Your task to perform on an android device: Empty the shopping cart on target.com. Image 0: 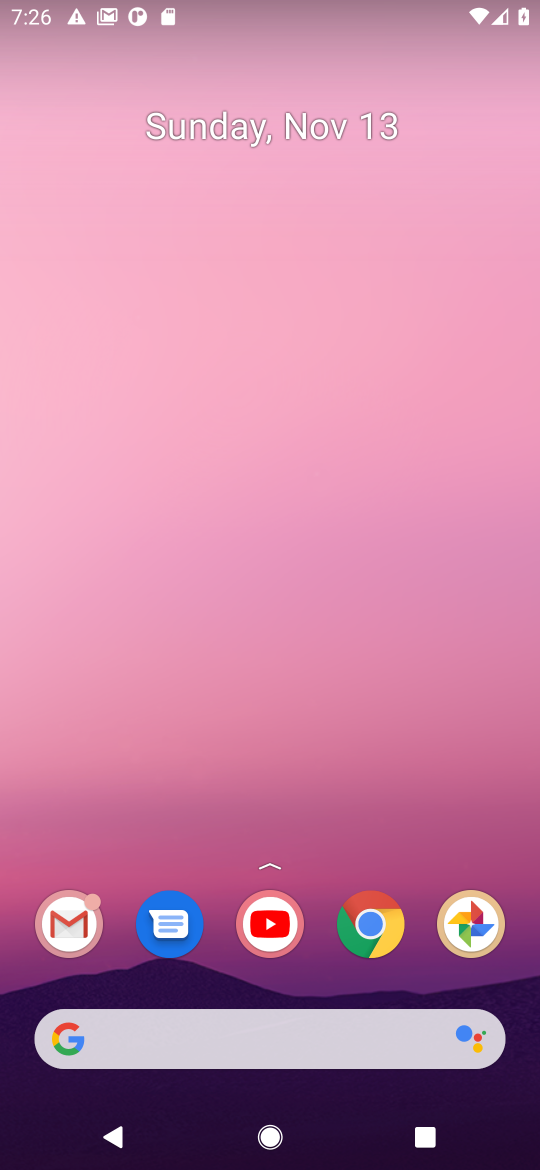
Step 0: click (372, 926)
Your task to perform on an android device: Empty the shopping cart on target.com. Image 1: 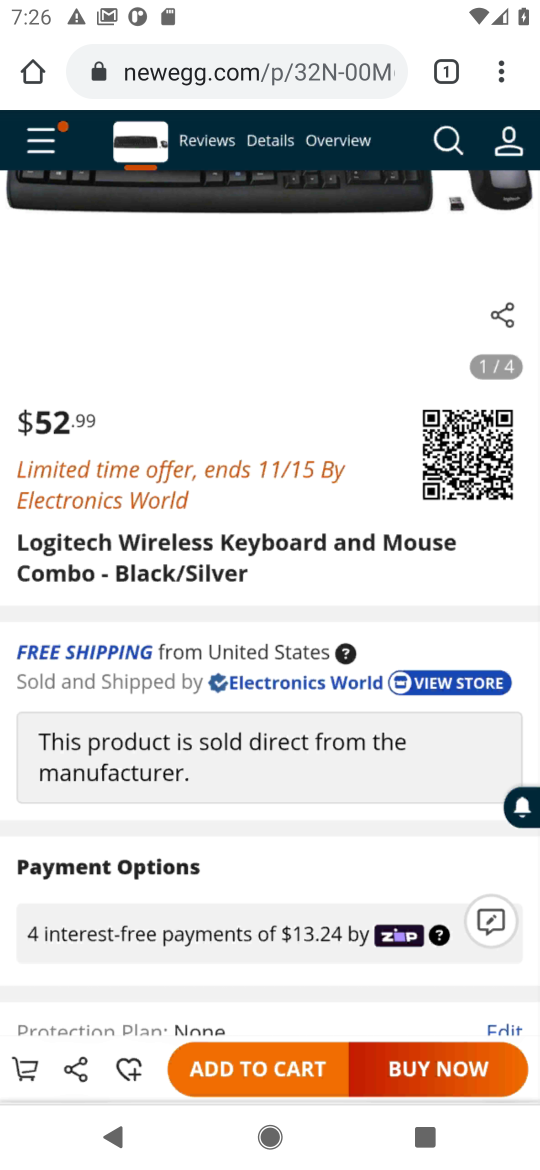
Step 1: click (228, 70)
Your task to perform on an android device: Empty the shopping cart on target.com. Image 2: 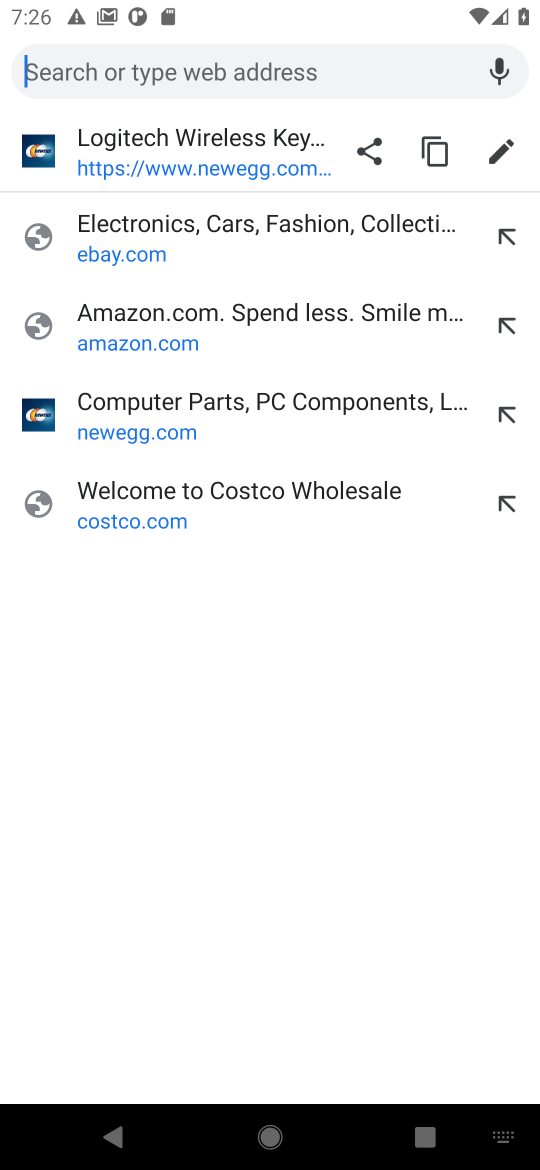
Step 2: type "target.com"
Your task to perform on an android device: Empty the shopping cart on target.com. Image 3: 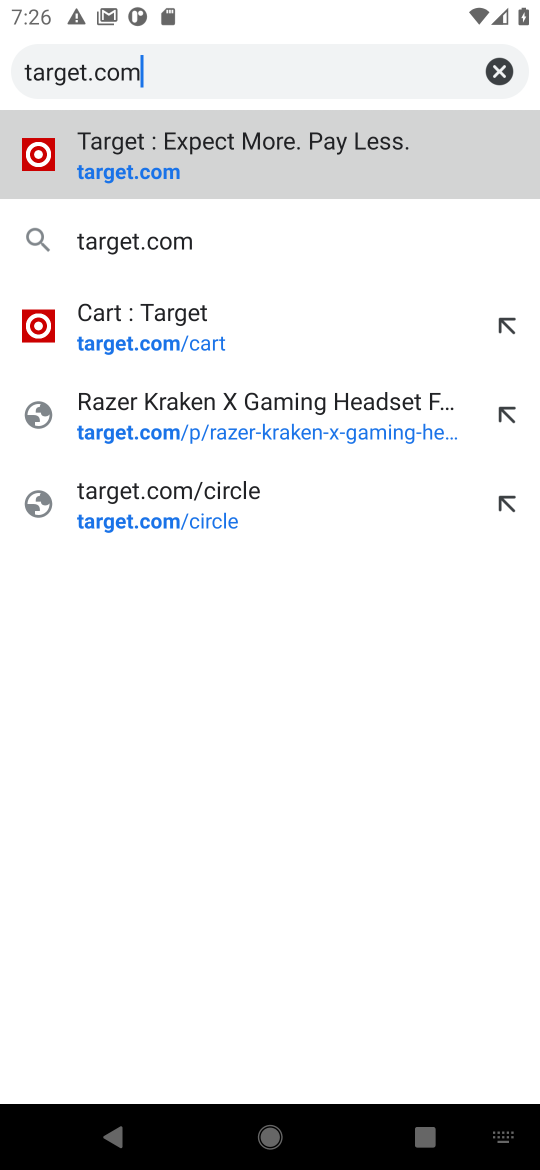
Step 3: click (134, 163)
Your task to perform on an android device: Empty the shopping cart on target.com. Image 4: 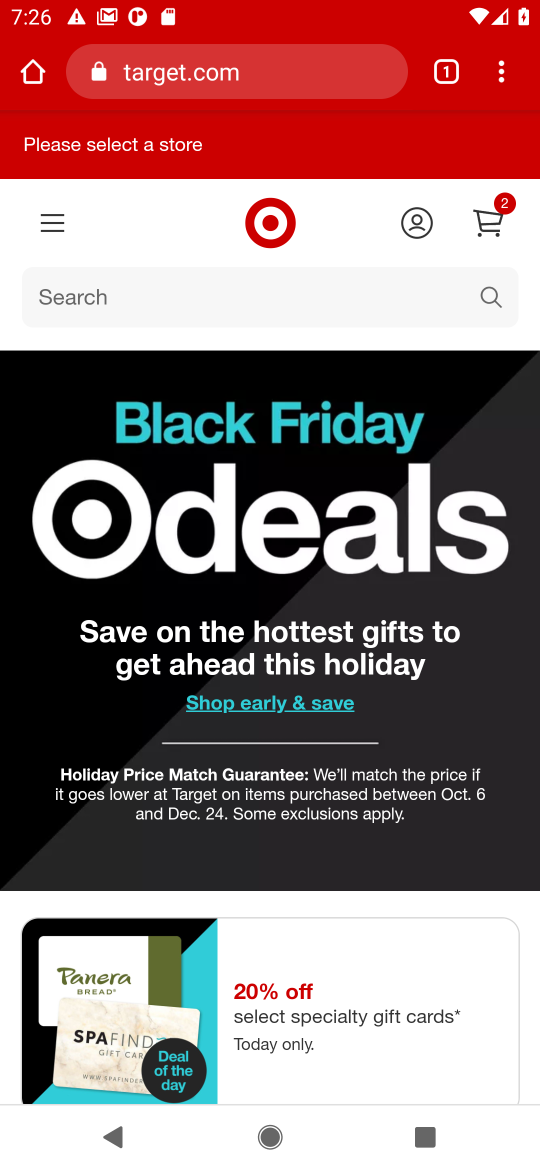
Step 4: click (487, 226)
Your task to perform on an android device: Empty the shopping cart on target.com. Image 5: 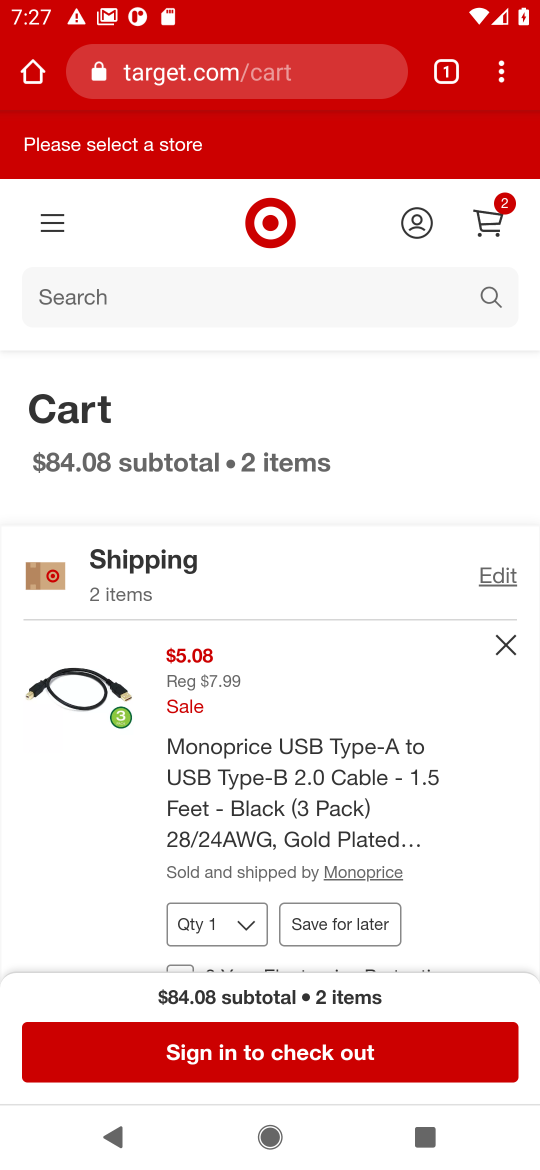
Step 5: click (506, 644)
Your task to perform on an android device: Empty the shopping cart on target.com. Image 6: 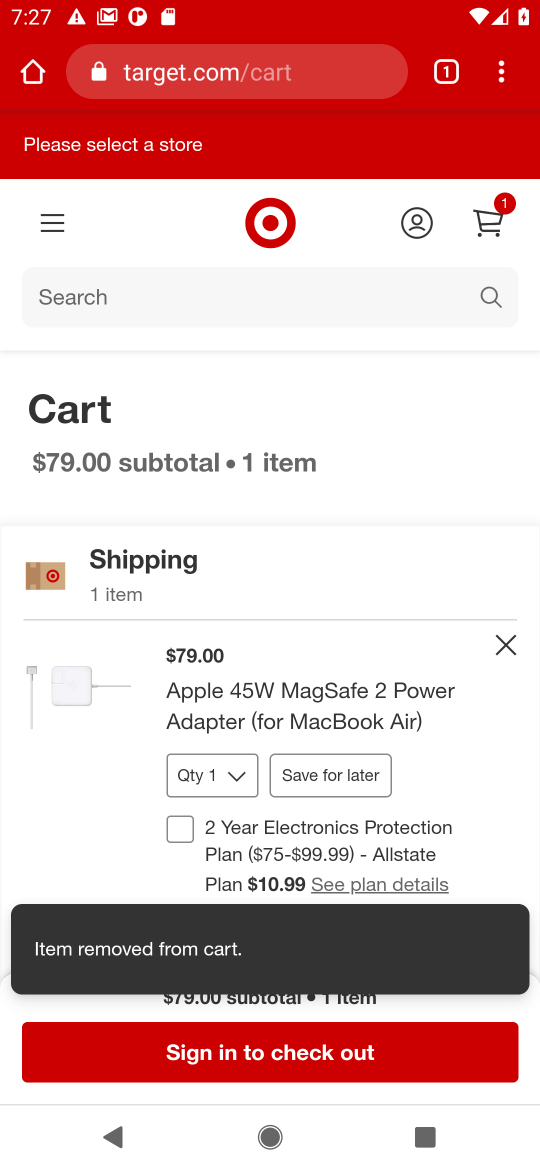
Step 6: click (504, 643)
Your task to perform on an android device: Empty the shopping cart on target.com. Image 7: 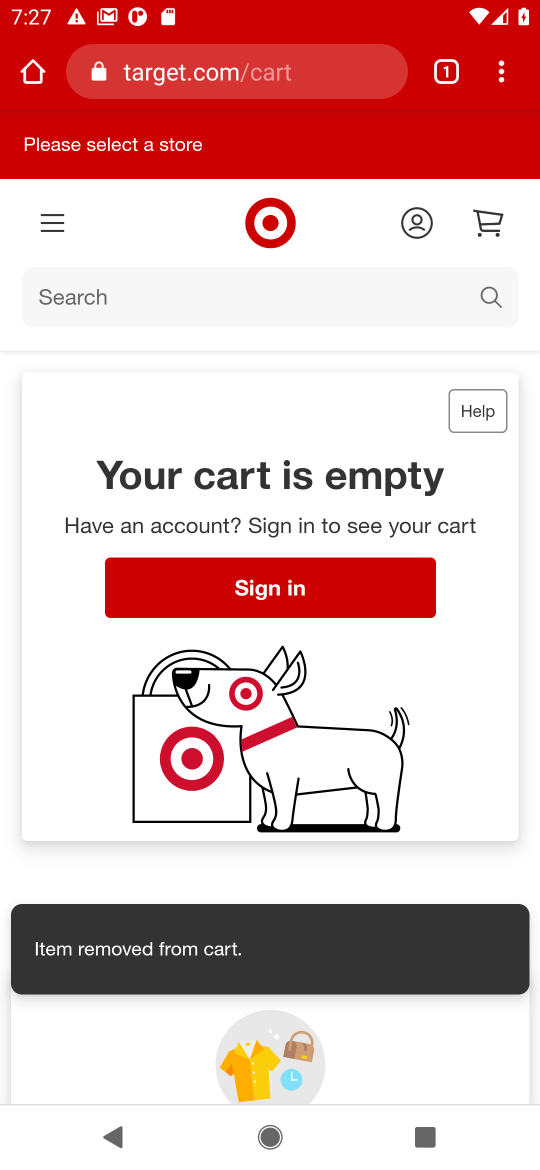
Step 7: task complete